Your task to perform on an android device: create a new album in the google photos Image 0: 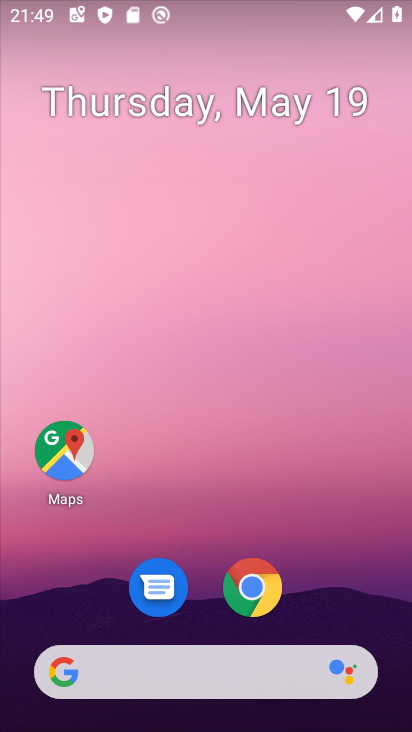
Step 0: drag from (214, 658) to (175, 80)
Your task to perform on an android device: create a new album in the google photos Image 1: 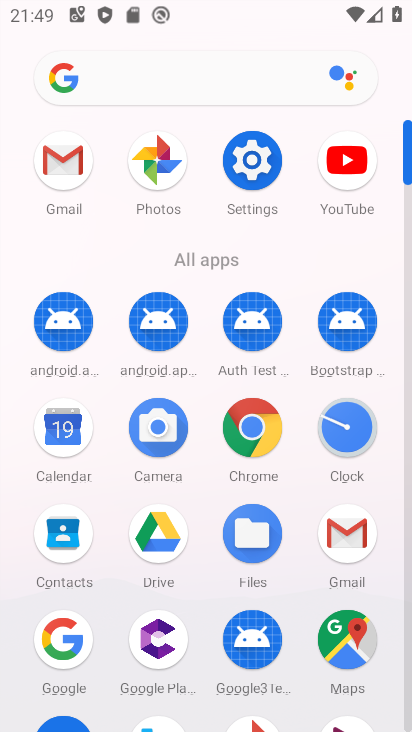
Step 1: click (161, 173)
Your task to perform on an android device: create a new album in the google photos Image 2: 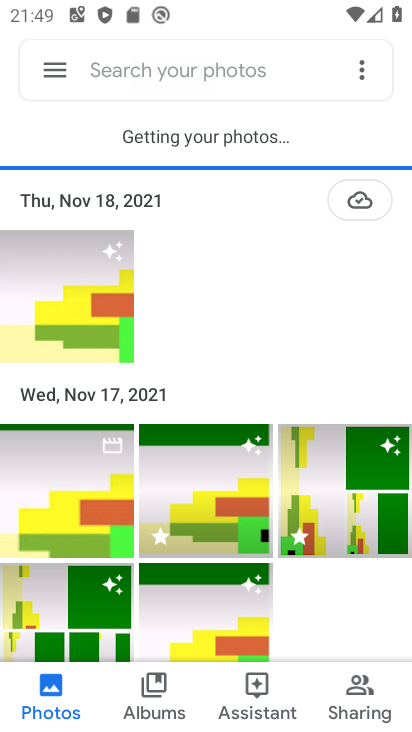
Step 2: click (174, 688)
Your task to perform on an android device: create a new album in the google photos Image 3: 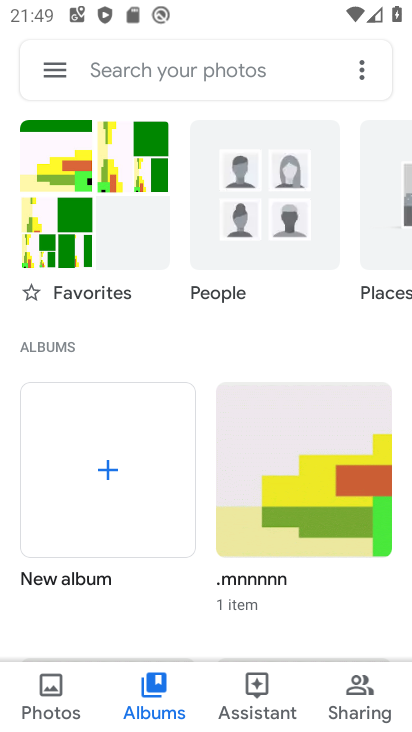
Step 3: click (109, 468)
Your task to perform on an android device: create a new album in the google photos Image 4: 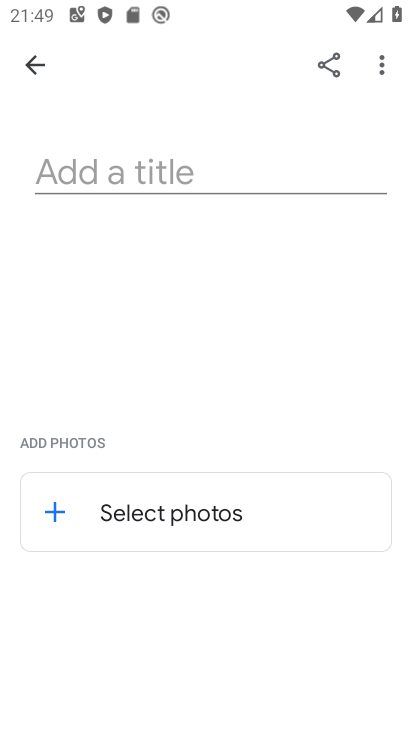
Step 4: click (175, 185)
Your task to perform on an android device: create a new album in the google photos Image 5: 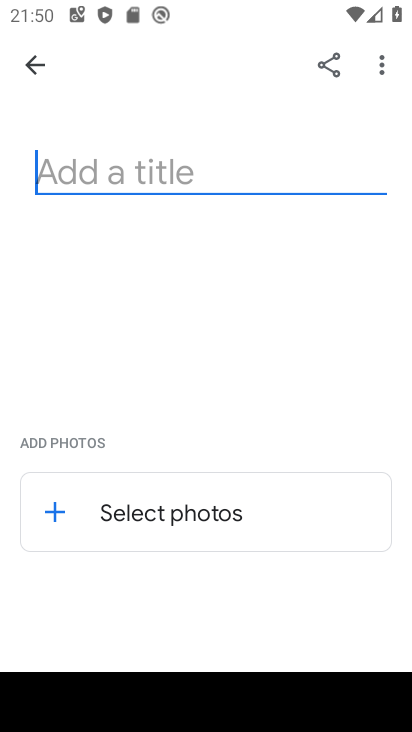
Step 5: type "bvcvxb"
Your task to perform on an android device: create a new album in the google photos Image 6: 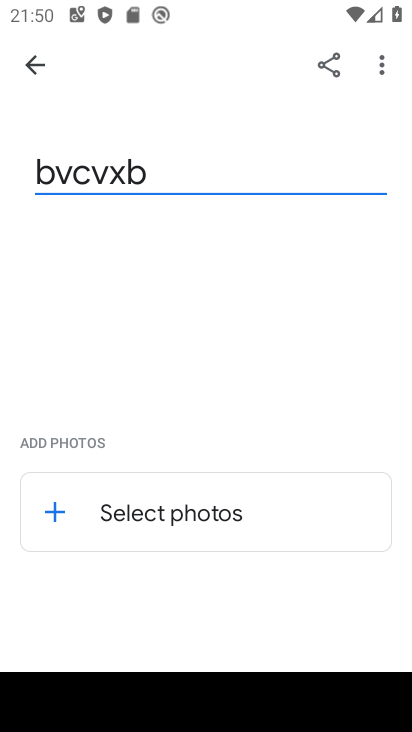
Step 6: click (168, 496)
Your task to perform on an android device: create a new album in the google photos Image 7: 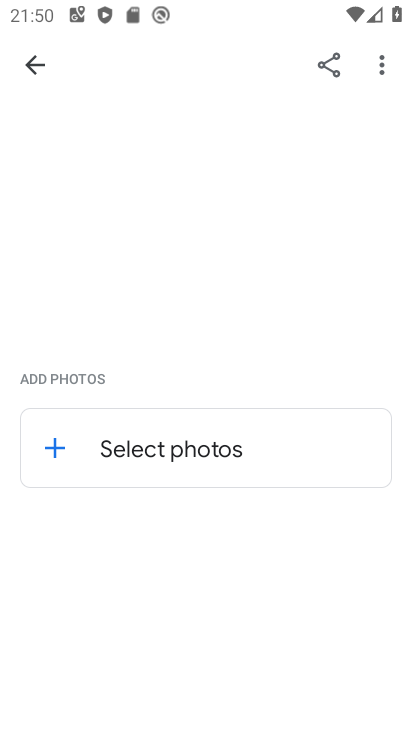
Step 7: click (171, 455)
Your task to perform on an android device: create a new album in the google photos Image 8: 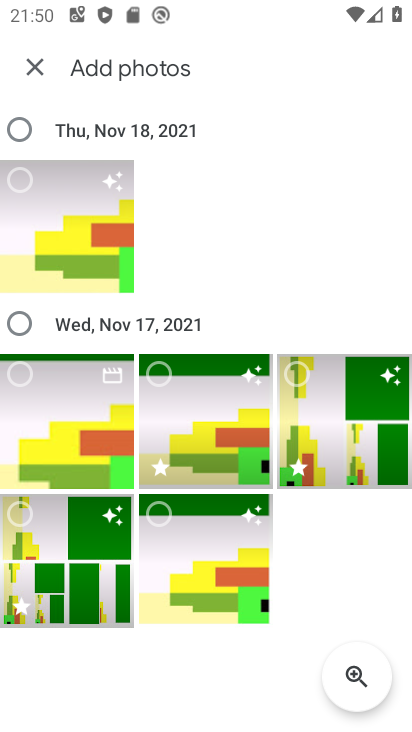
Step 8: click (25, 130)
Your task to perform on an android device: create a new album in the google photos Image 9: 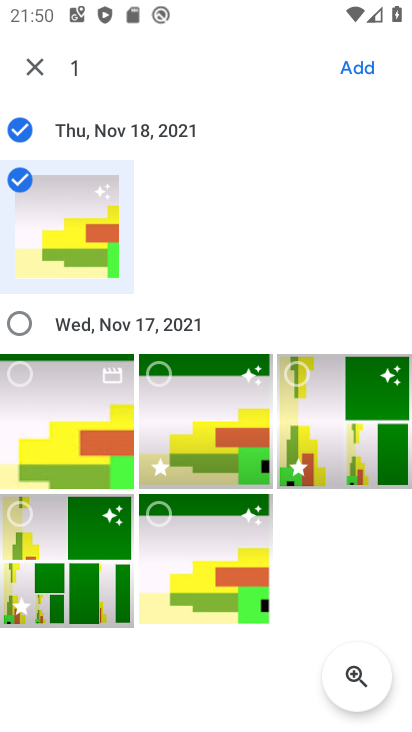
Step 9: click (27, 341)
Your task to perform on an android device: create a new album in the google photos Image 10: 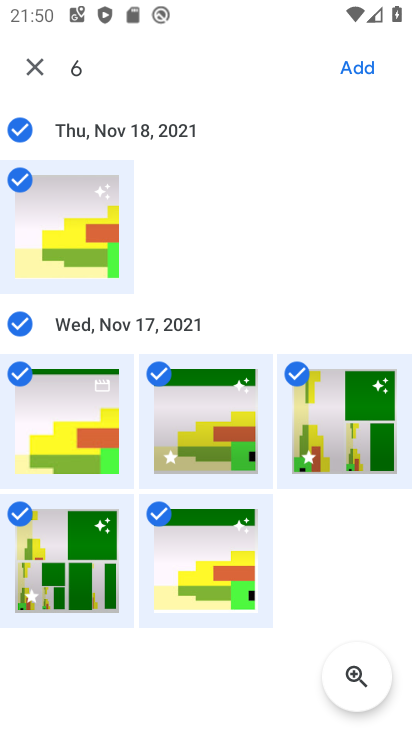
Step 10: click (352, 71)
Your task to perform on an android device: create a new album in the google photos Image 11: 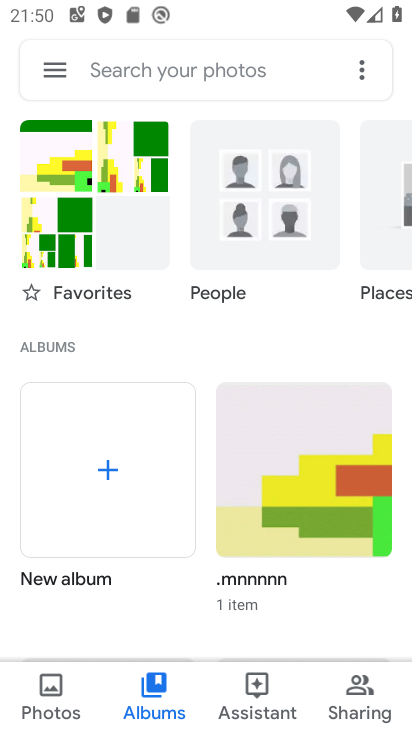
Step 11: task complete